Your task to perform on an android device: Open Chrome and go to settings Image 0: 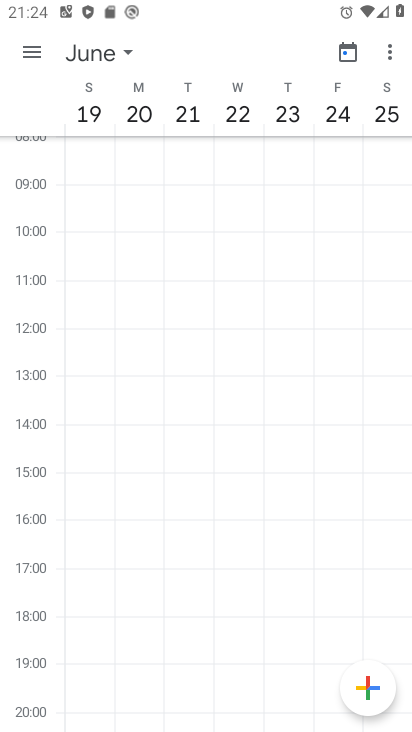
Step 0: press home button
Your task to perform on an android device: Open Chrome and go to settings Image 1: 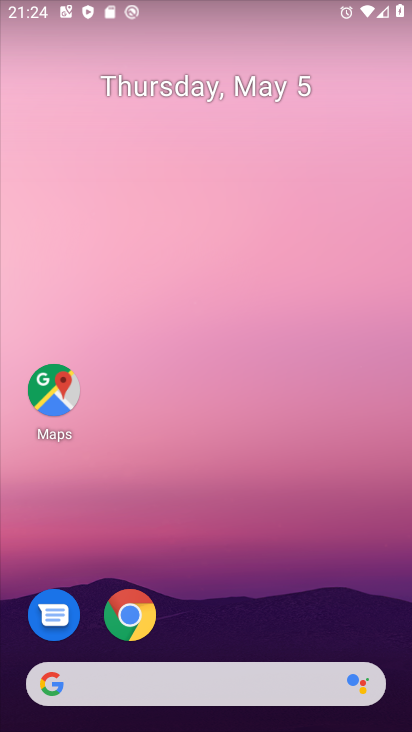
Step 1: click (125, 604)
Your task to perform on an android device: Open Chrome and go to settings Image 2: 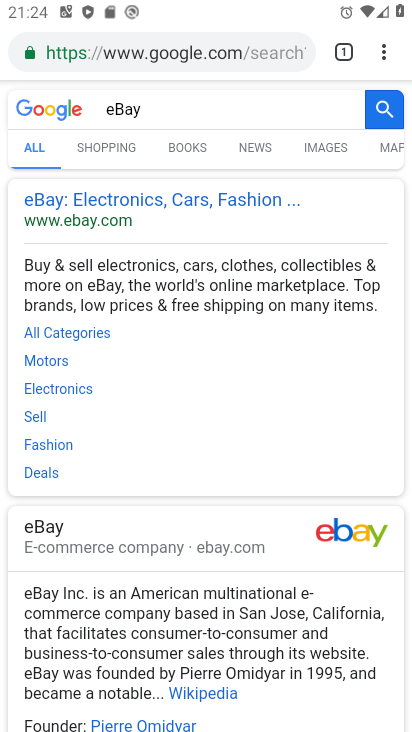
Step 2: click (391, 54)
Your task to perform on an android device: Open Chrome and go to settings Image 3: 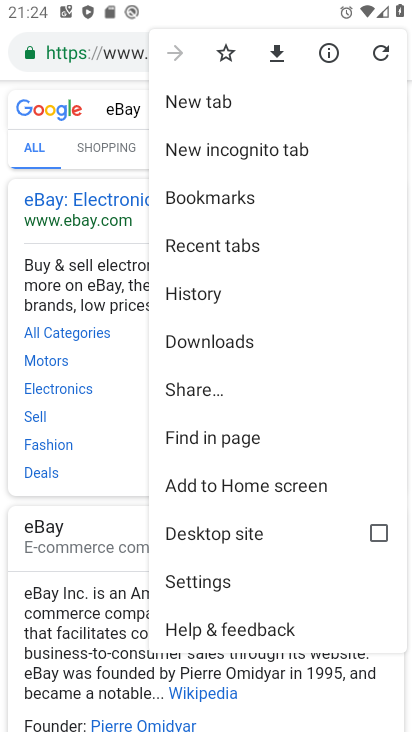
Step 3: click (199, 587)
Your task to perform on an android device: Open Chrome and go to settings Image 4: 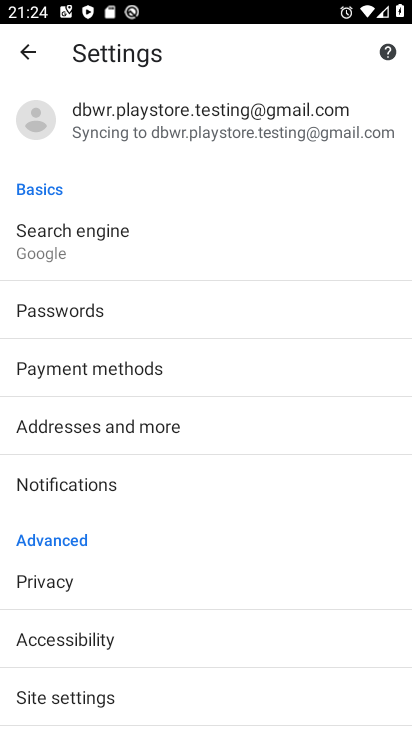
Step 4: task complete